Your task to perform on an android device: Open sound settings Image 0: 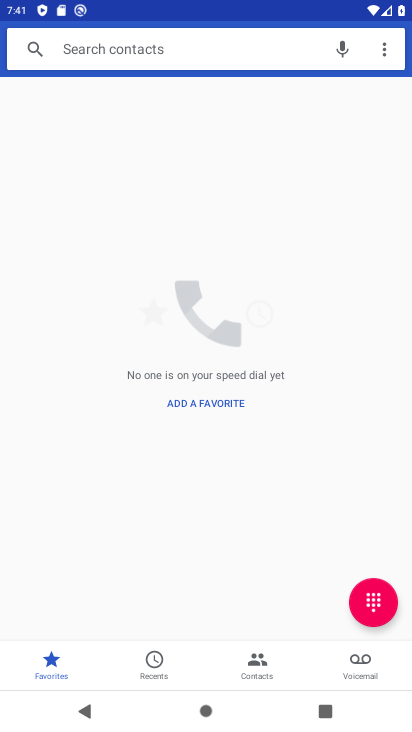
Step 0: press home button
Your task to perform on an android device: Open sound settings Image 1: 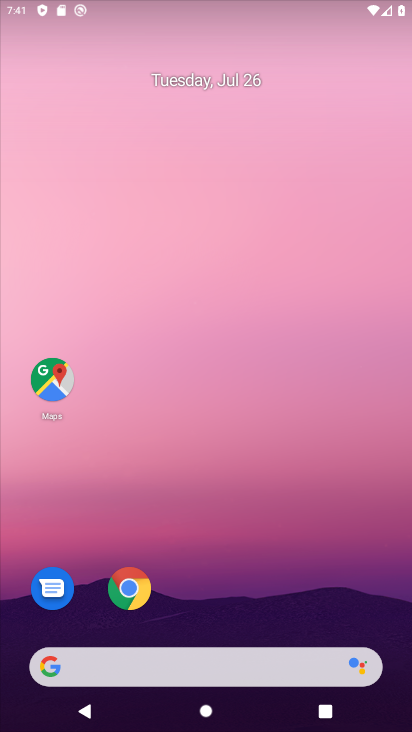
Step 1: drag from (162, 650) to (231, 269)
Your task to perform on an android device: Open sound settings Image 2: 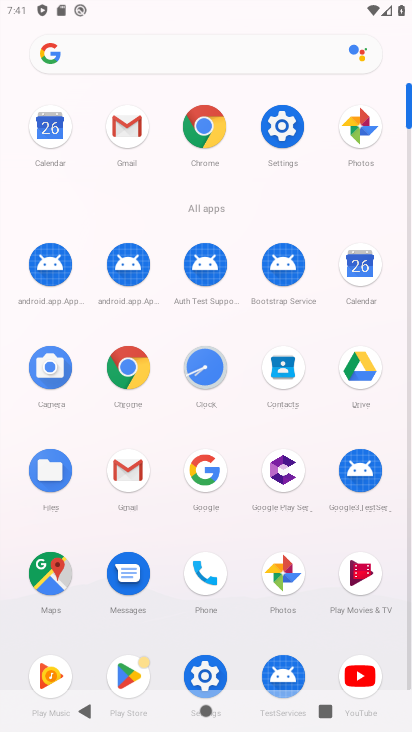
Step 2: click (283, 147)
Your task to perform on an android device: Open sound settings Image 3: 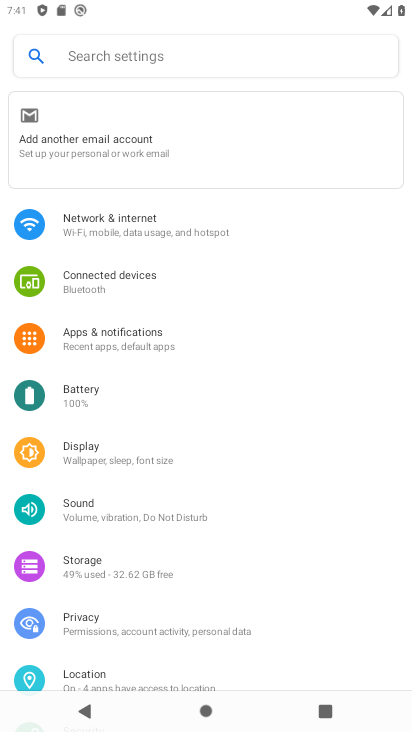
Step 3: click (74, 505)
Your task to perform on an android device: Open sound settings Image 4: 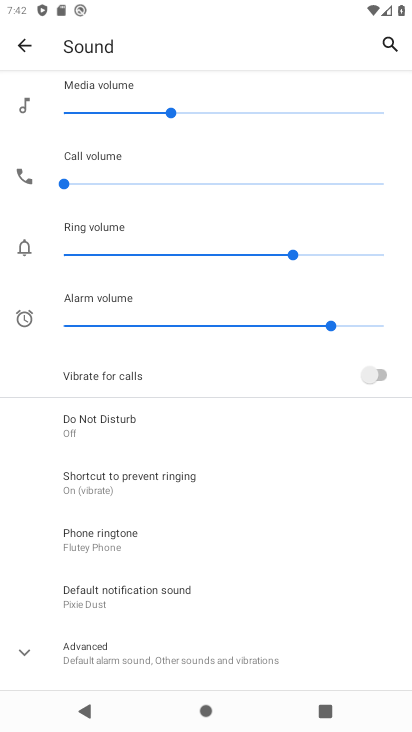
Step 4: drag from (241, 661) to (257, 274)
Your task to perform on an android device: Open sound settings Image 5: 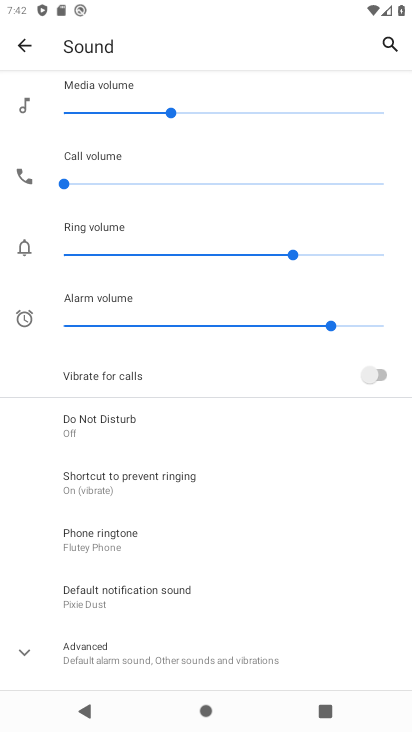
Step 5: click (120, 645)
Your task to perform on an android device: Open sound settings Image 6: 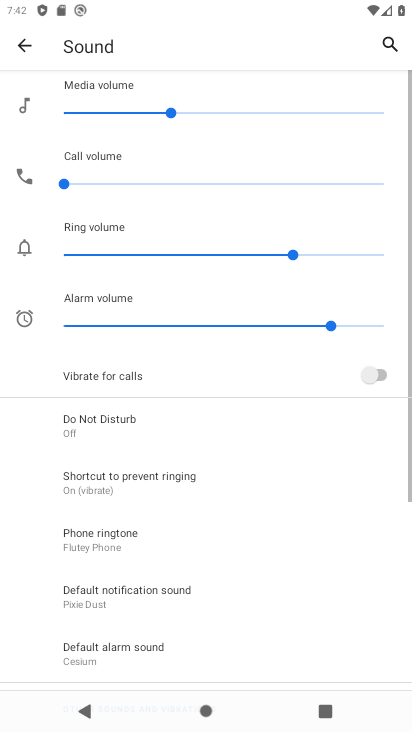
Step 6: task complete